Your task to perform on an android device: Go to accessibility settings Image 0: 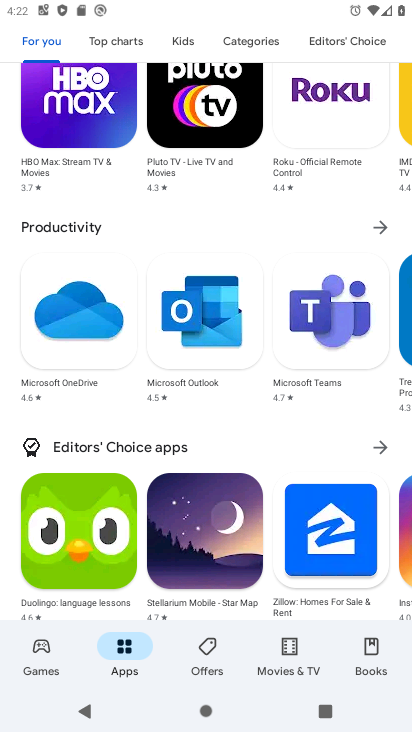
Step 0: press home button
Your task to perform on an android device: Go to accessibility settings Image 1: 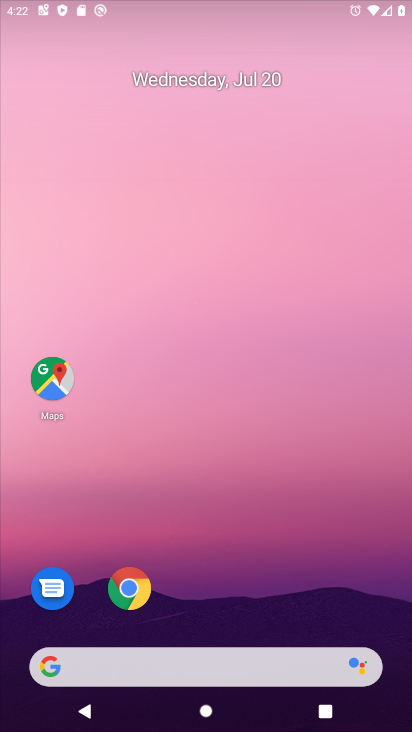
Step 1: drag from (269, 567) to (282, 36)
Your task to perform on an android device: Go to accessibility settings Image 2: 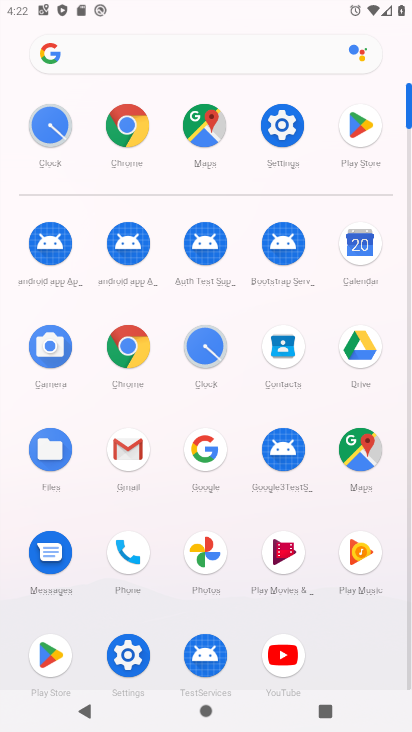
Step 2: click (282, 129)
Your task to perform on an android device: Go to accessibility settings Image 3: 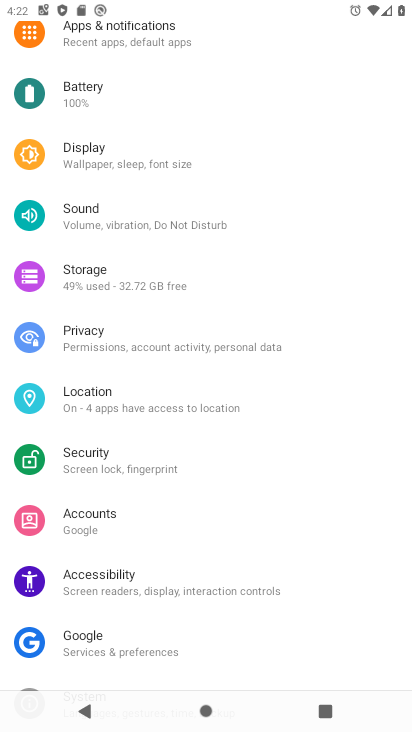
Step 3: click (114, 581)
Your task to perform on an android device: Go to accessibility settings Image 4: 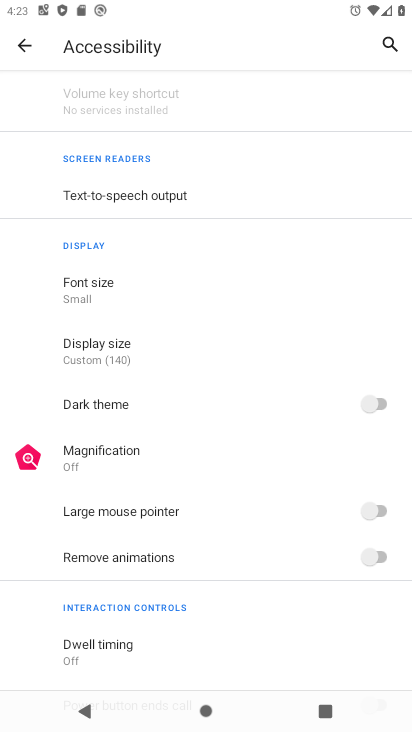
Step 4: task complete